Your task to perform on an android device: Open maps Image 0: 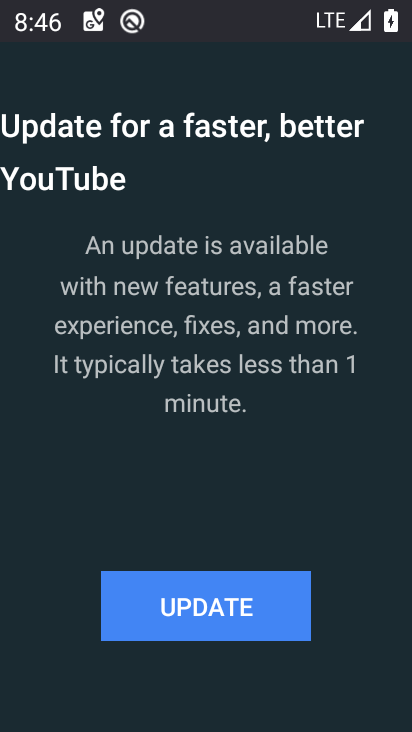
Step 0: task complete